Your task to perform on an android device: open a new tab in the chrome app Image 0: 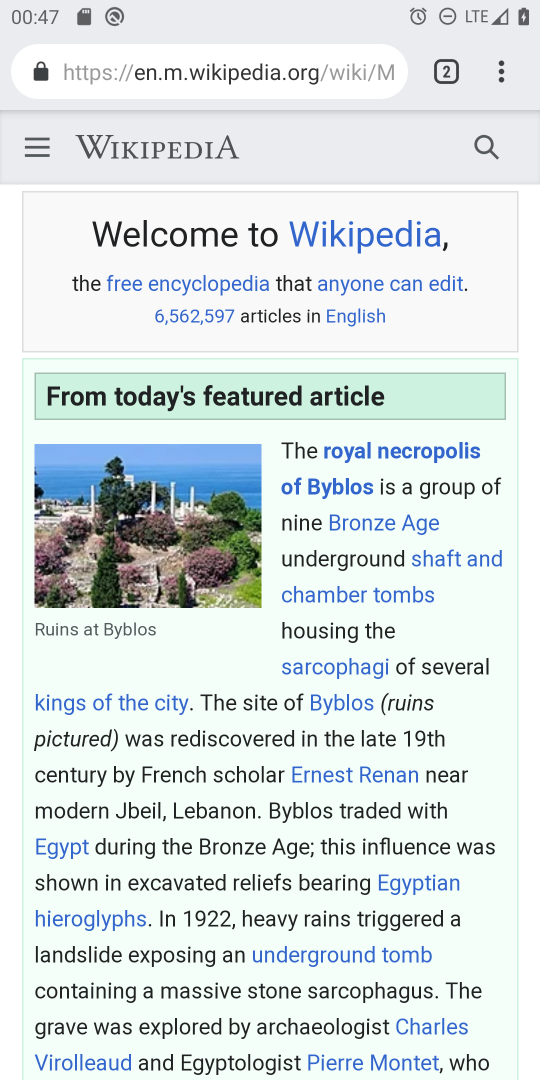
Step 0: press home button
Your task to perform on an android device: open a new tab in the chrome app Image 1: 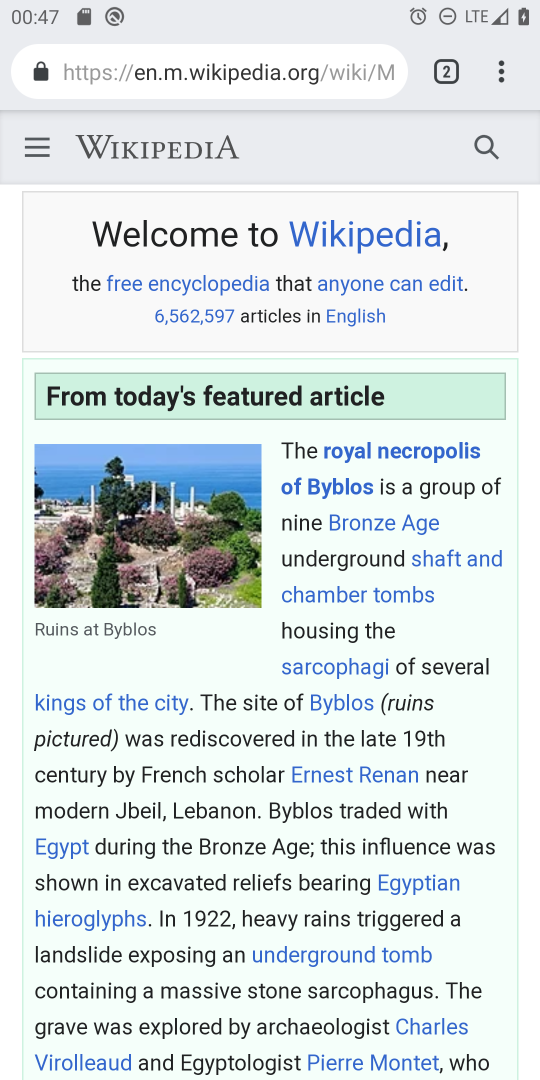
Step 1: press home button
Your task to perform on an android device: open a new tab in the chrome app Image 2: 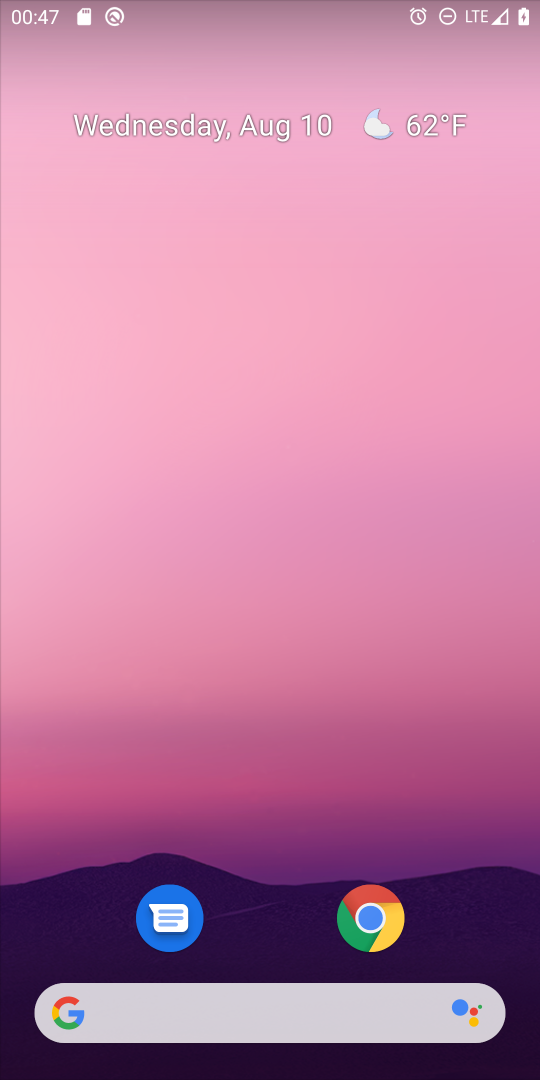
Step 2: drag from (269, 858) to (262, 181)
Your task to perform on an android device: open a new tab in the chrome app Image 3: 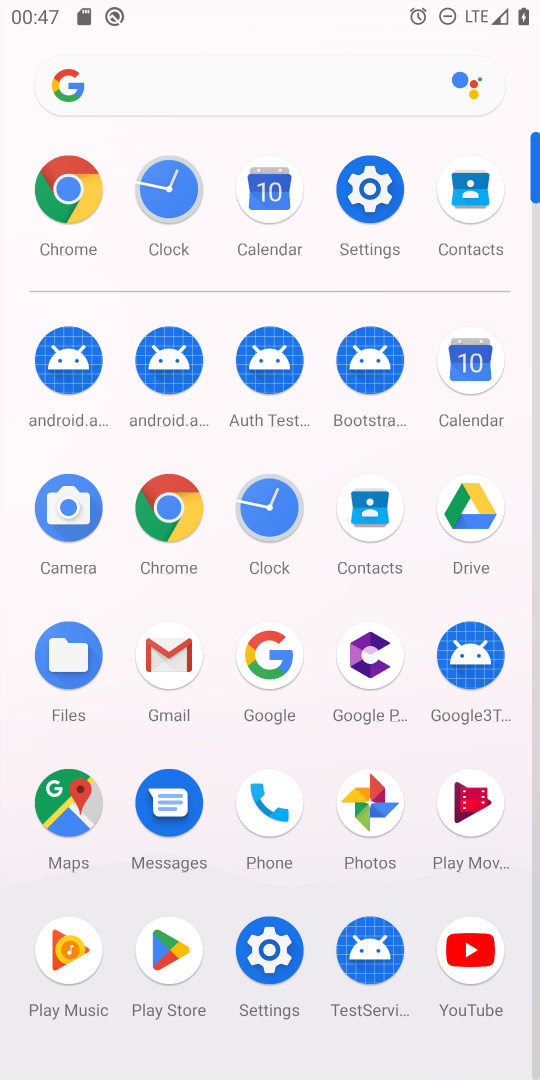
Step 3: click (162, 508)
Your task to perform on an android device: open a new tab in the chrome app Image 4: 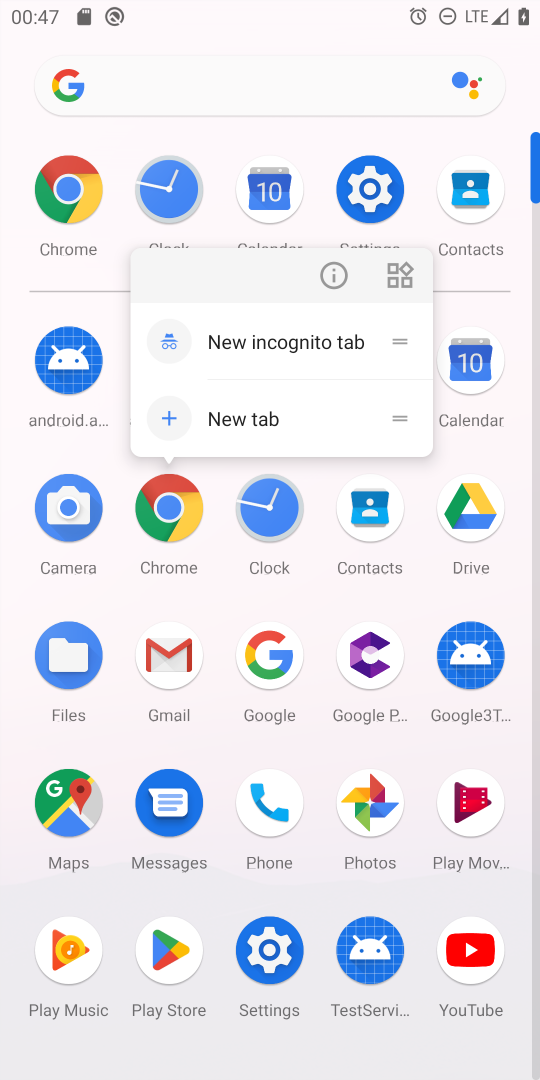
Step 4: click (170, 511)
Your task to perform on an android device: open a new tab in the chrome app Image 5: 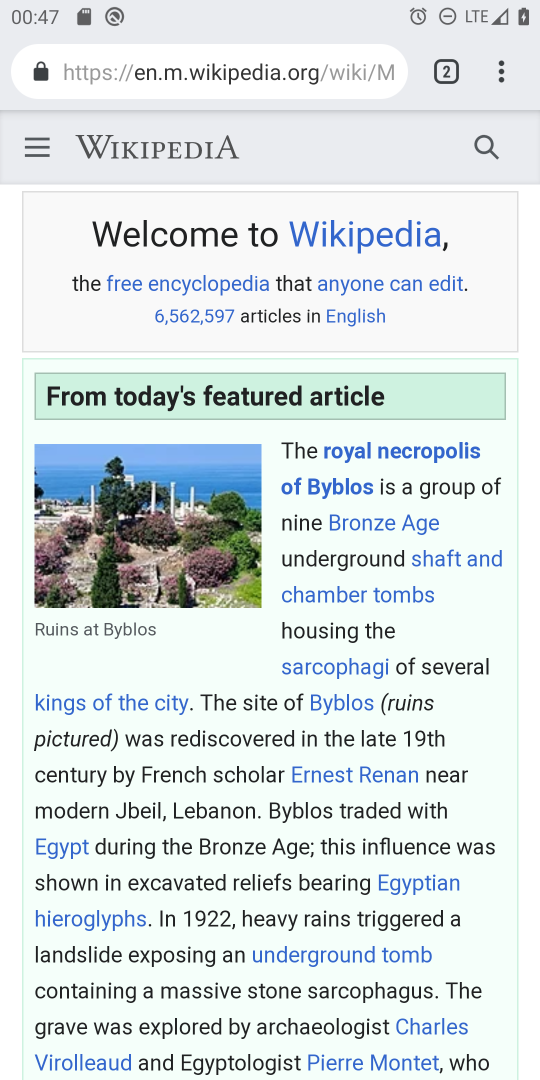
Step 5: task complete